Your task to perform on an android device: Go to sound settings Image 0: 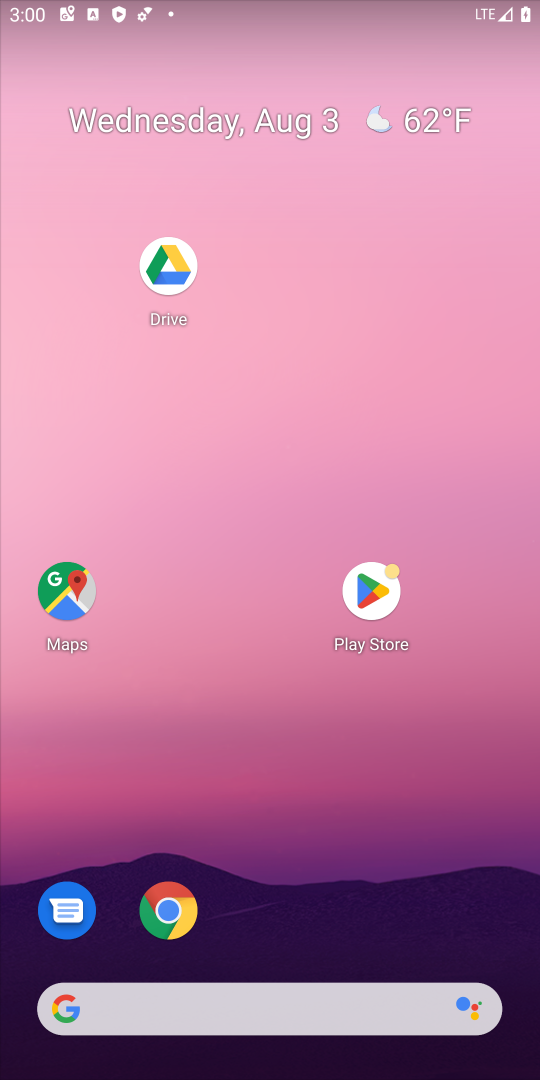
Step 0: drag from (323, 578) to (307, 0)
Your task to perform on an android device: Go to sound settings Image 1: 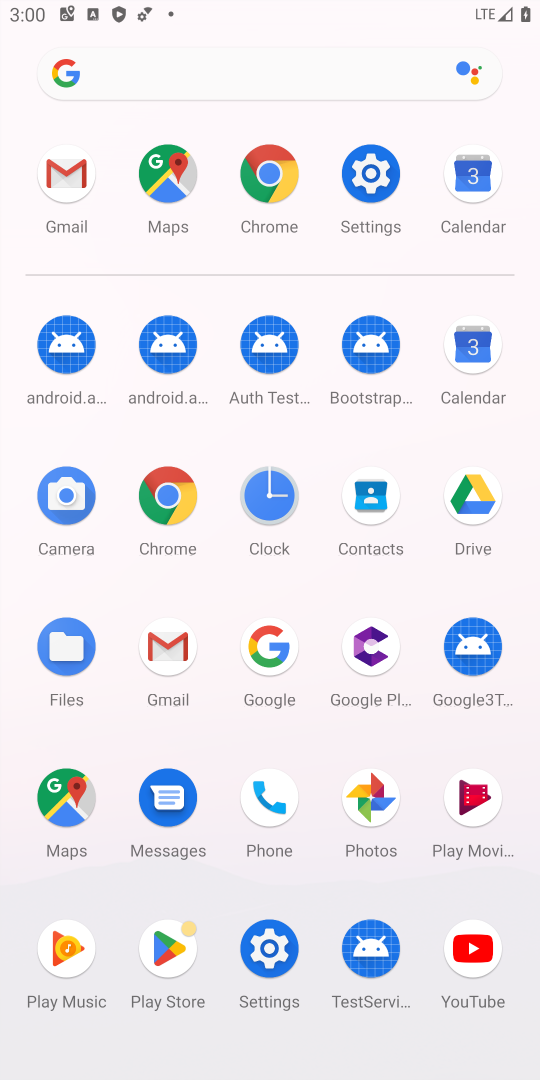
Step 1: click (387, 173)
Your task to perform on an android device: Go to sound settings Image 2: 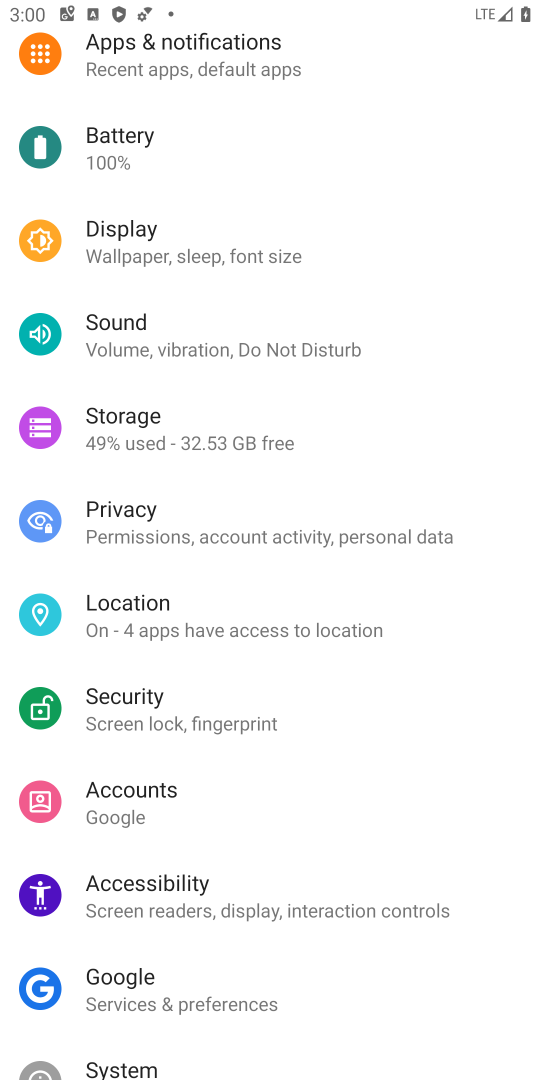
Step 2: click (429, 343)
Your task to perform on an android device: Go to sound settings Image 3: 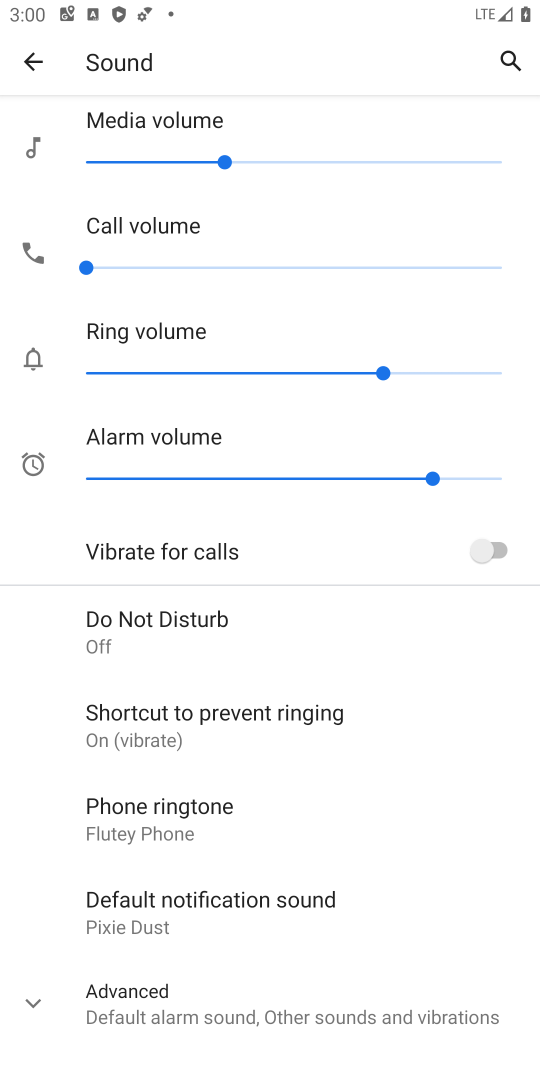
Step 3: click (198, 343)
Your task to perform on an android device: Go to sound settings Image 4: 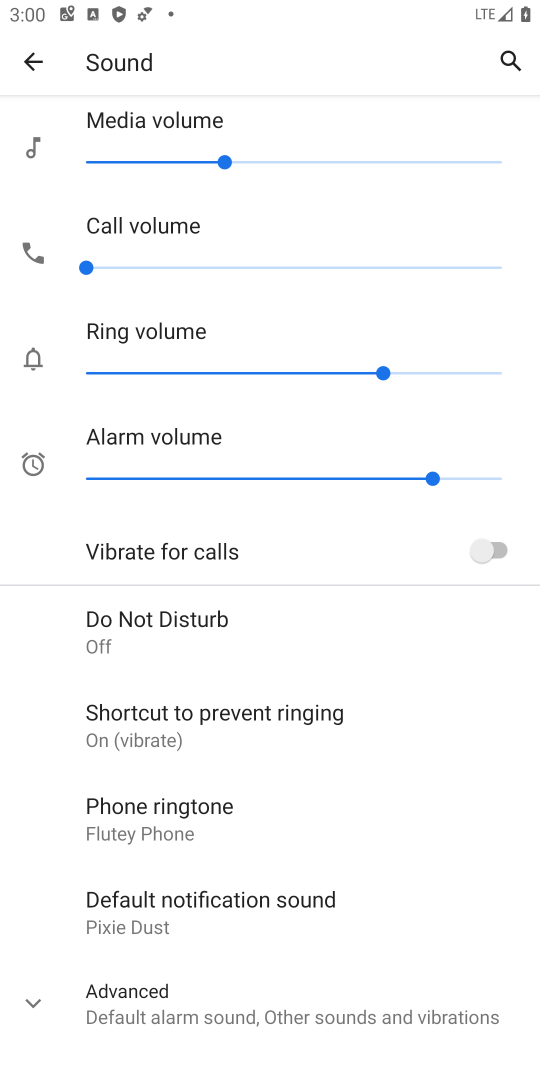
Step 4: task complete